Your task to perform on an android device: change alarm snooze length Image 0: 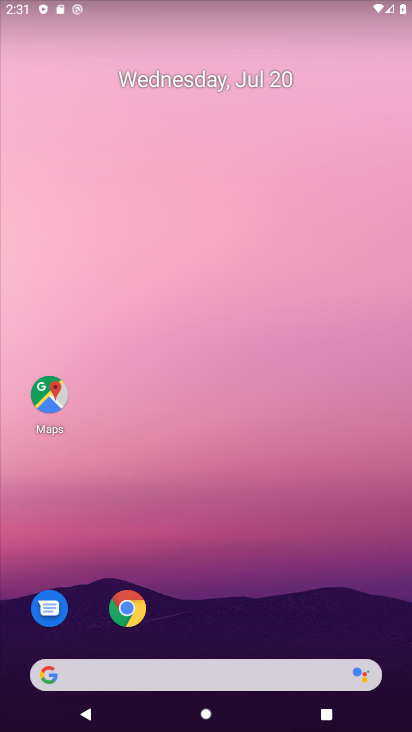
Step 0: drag from (311, 648) to (239, 180)
Your task to perform on an android device: change alarm snooze length Image 1: 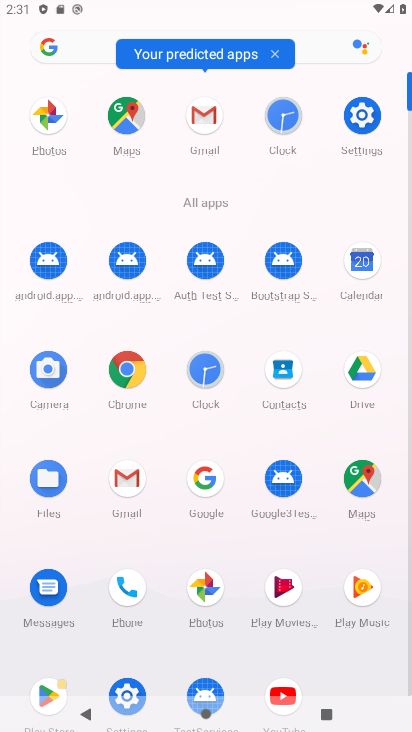
Step 1: click (282, 132)
Your task to perform on an android device: change alarm snooze length Image 2: 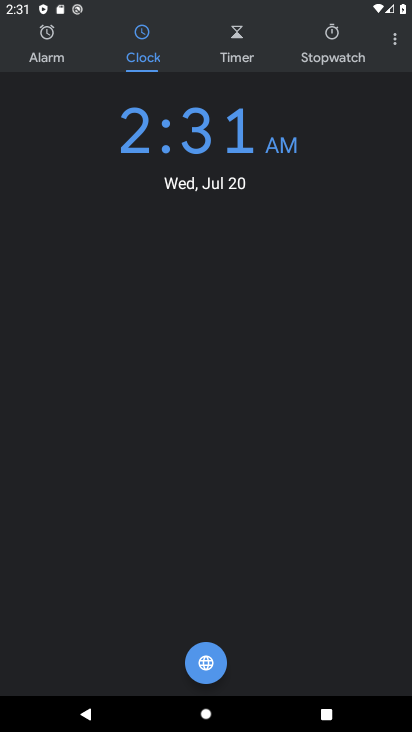
Step 2: click (392, 36)
Your task to perform on an android device: change alarm snooze length Image 3: 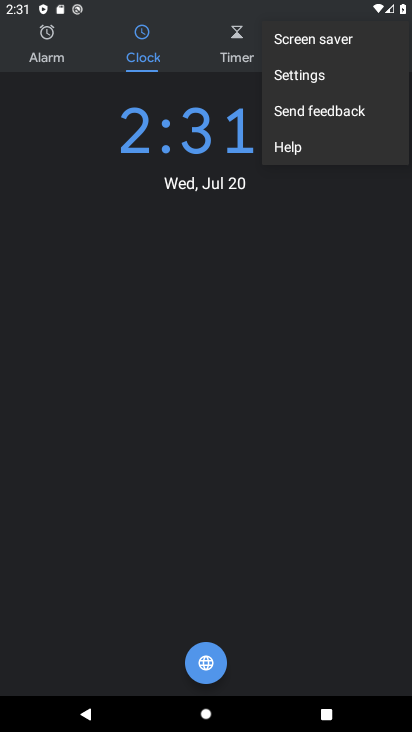
Step 3: click (314, 82)
Your task to perform on an android device: change alarm snooze length Image 4: 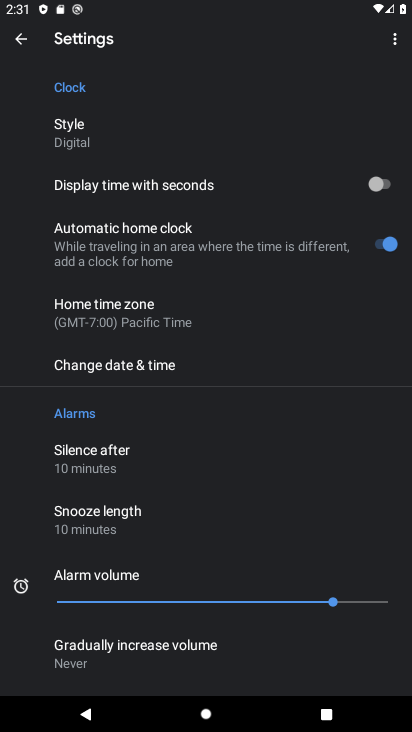
Step 4: click (135, 519)
Your task to perform on an android device: change alarm snooze length Image 5: 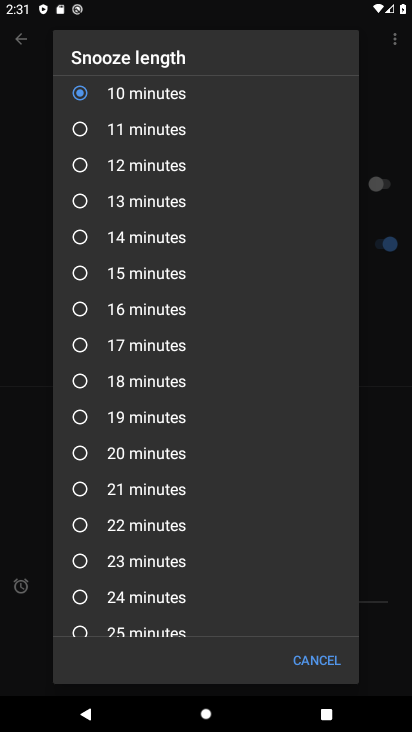
Step 5: click (143, 124)
Your task to perform on an android device: change alarm snooze length Image 6: 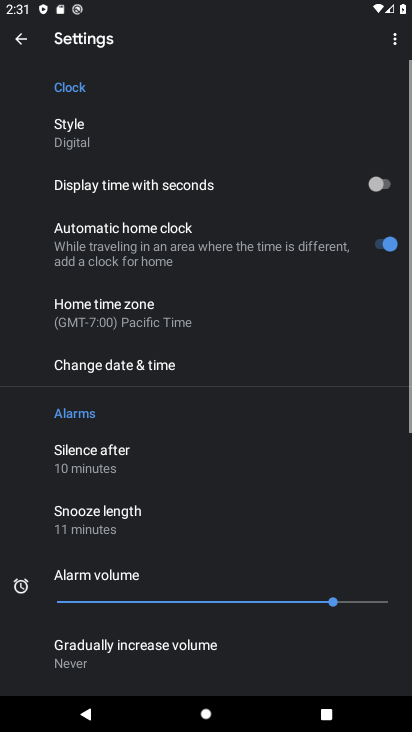
Step 6: task complete